Your task to perform on an android device: check storage Image 0: 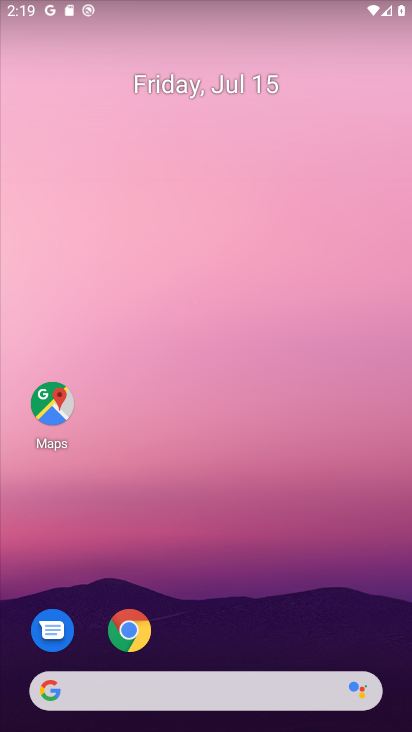
Step 0: click (214, 443)
Your task to perform on an android device: check storage Image 1: 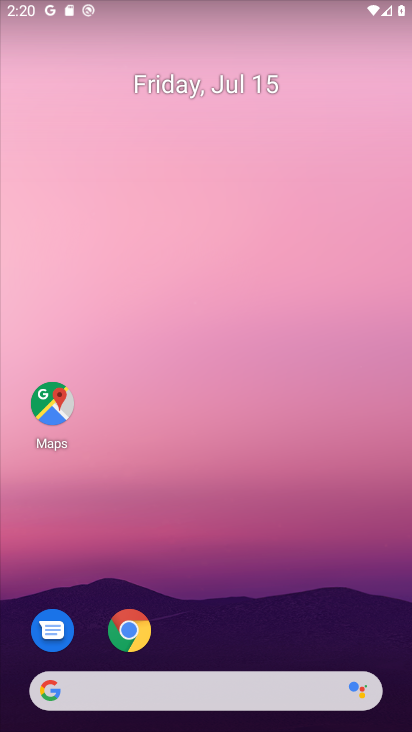
Step 1: drag from (218, 702) to (162, 164)
Your task to perform on an android device: check storage Image 2: 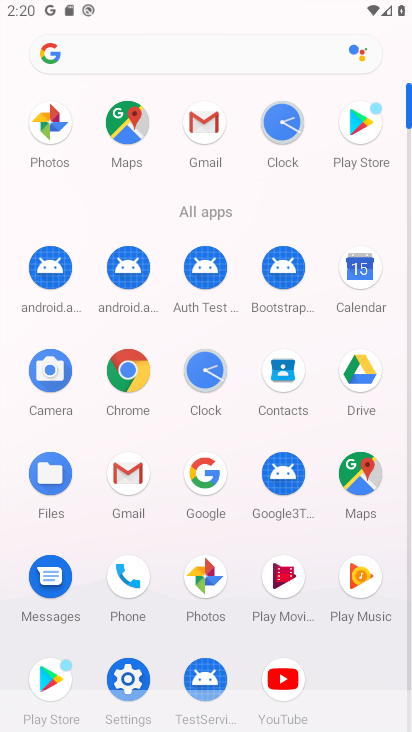
Step 2: click (130, 671)
Your task to perform on an android device: check storage Image 3: 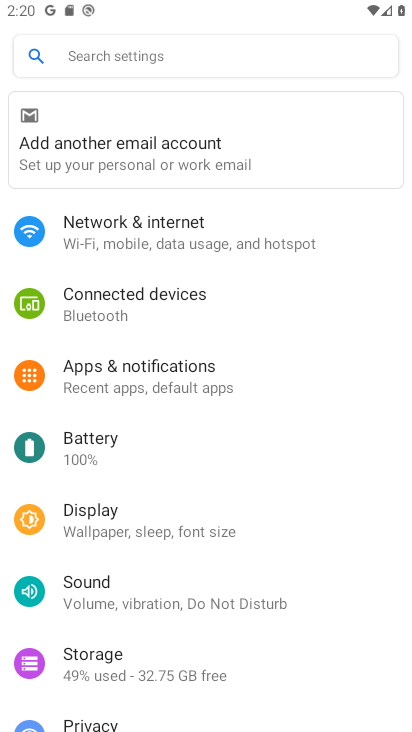
Step 3: click (99, 653)
Your task to perform on an android device: check storage Image 4: 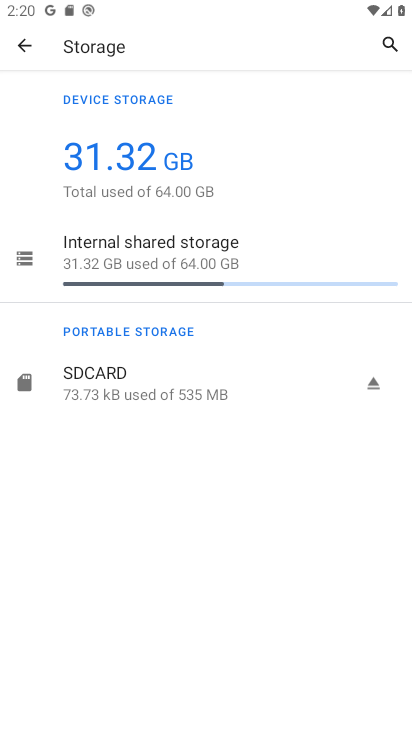
Step 4: task complete